Your task to perform on an android device: all mails in gmail Image 0: 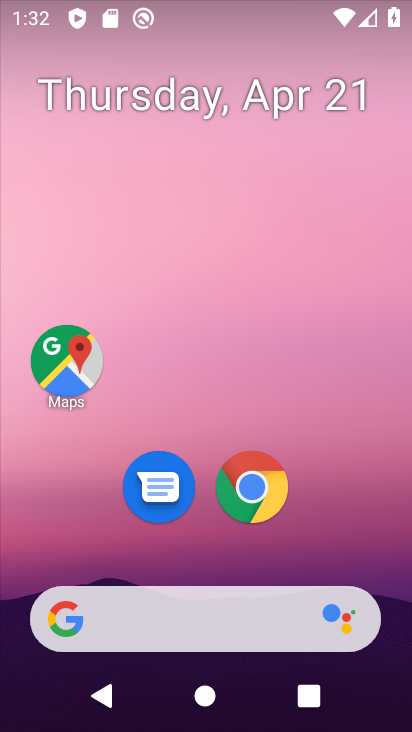
Step 0: drag from (194, 575) to (290, 5)
Your task to perform on an android device: all mails in gmail Image 1: 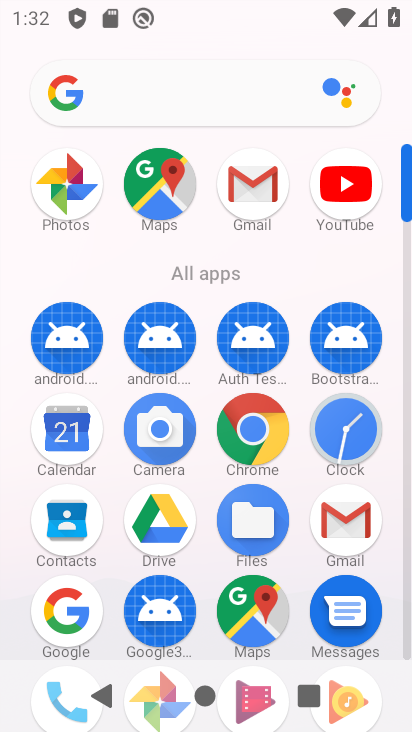
Step 1: drag from (212, 571) to (218, 209)
Your task to perform on an android device: all mails in gmail Image 2: 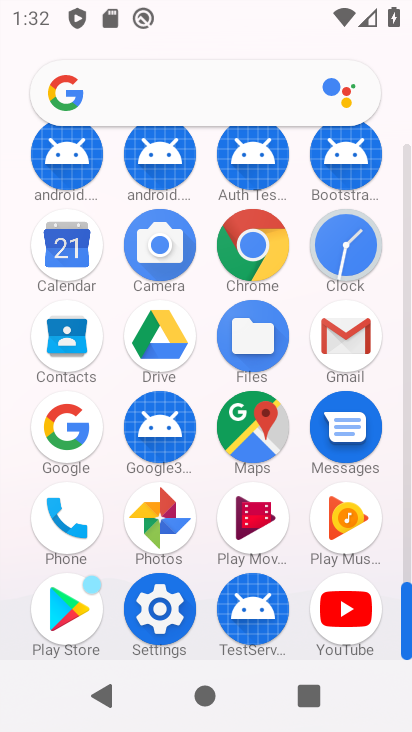
Step 2: drag from (212, 565) to (227, 271)
Your task to perform on an android device: all mails in gmail Image 3: 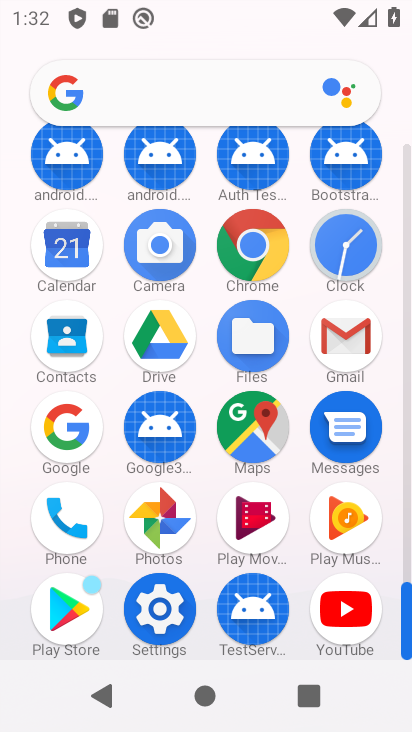
Step 3: click (344, 330)
Your task to perform on an android device: all mails in gmail Image 4: 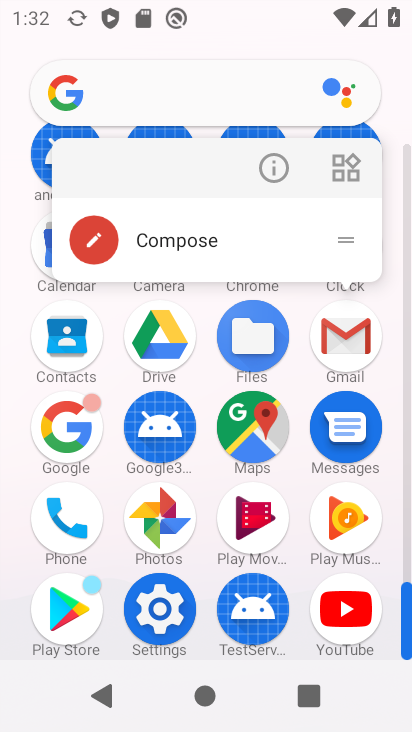
Step 4: drag from (183, 506) to (232, 296)
Your task to perform on an android device: all mails in gmail Image 5: 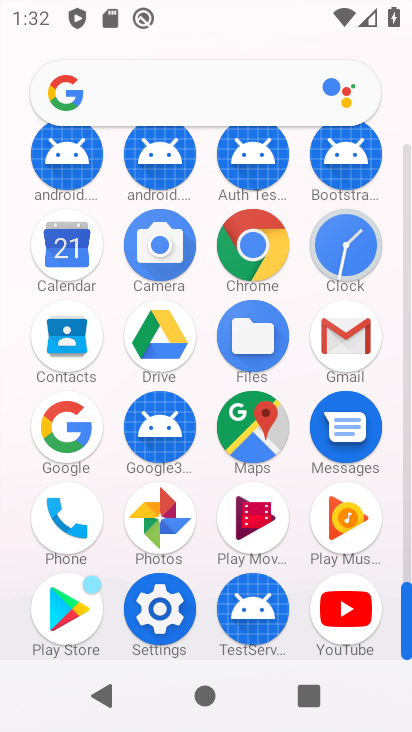
Step 5: click (344, 341)
Your task to perform on an android device: all mails in gmail Image 6: 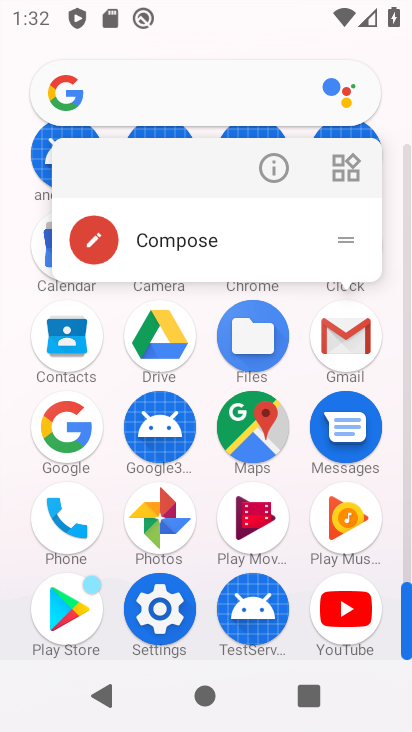
Step 6: click (276, 165)
Your task to perform on an android device: all mails in gmail Image 7: 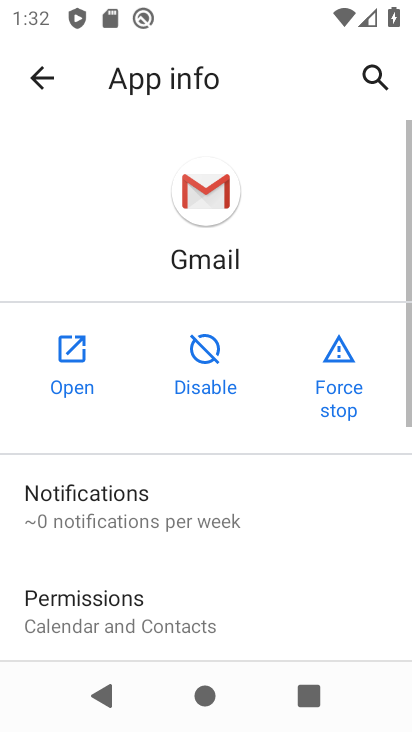
Step 7: click (74, 388)
Your task to perform on an android device: all mails in gmail Image 8: 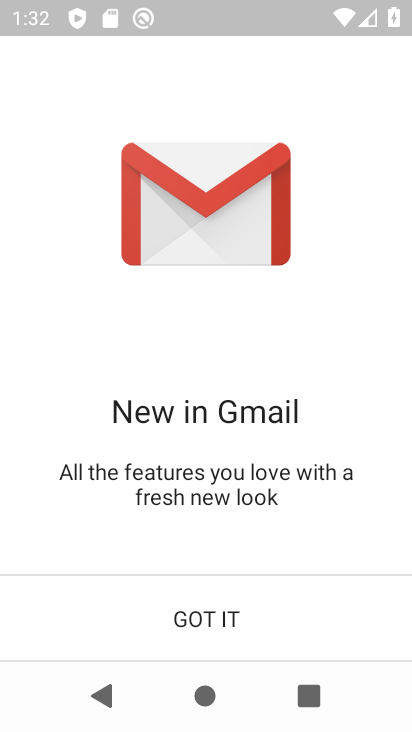
Step 8: click (177, 584)
Your task to perform on an android device: all mails in gmail Image 9: 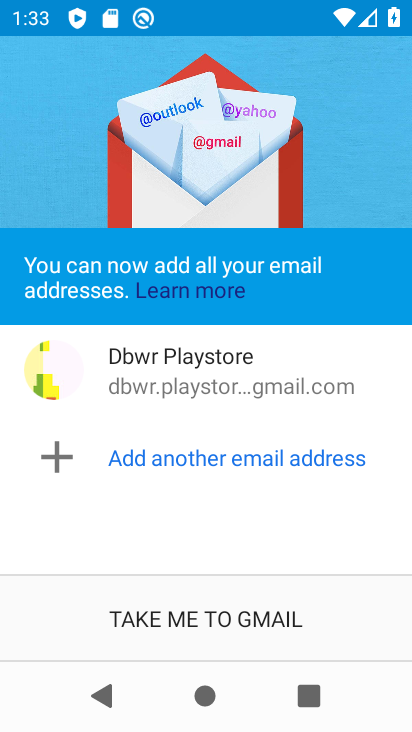
Step 9: click (169, 592)
Your task to perform on an android device: all mails in gmail Image 10: 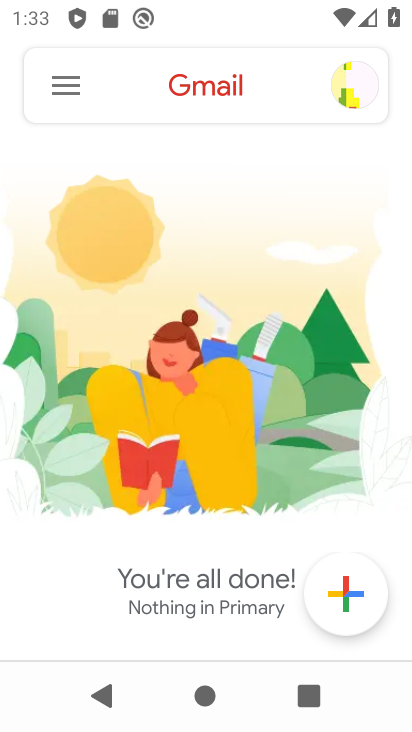
Step 10: click (64, 94)
Your task to perform on an android device: all mails in gmail Image 11: 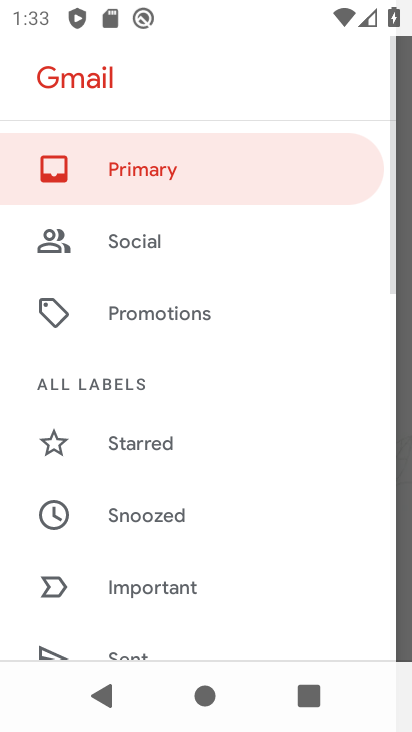
Step 11: drag from (207, 497) to (222, 151)
Your task to perform on an android device: all mails in gmail Image 12: 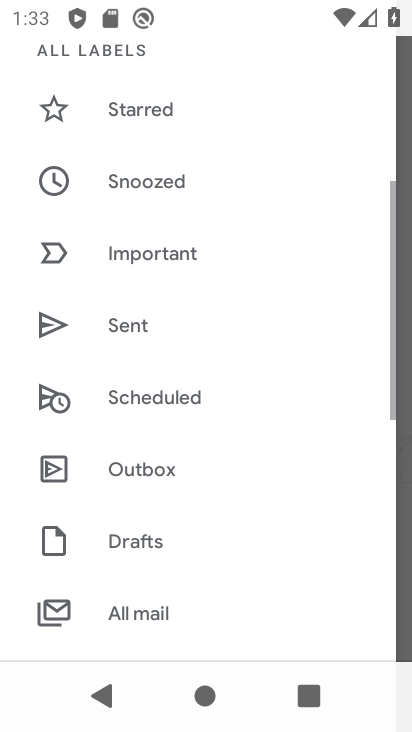
Step 12: click (152, 603)
Your task to perform on an android device: all mails in gmail Image 13: 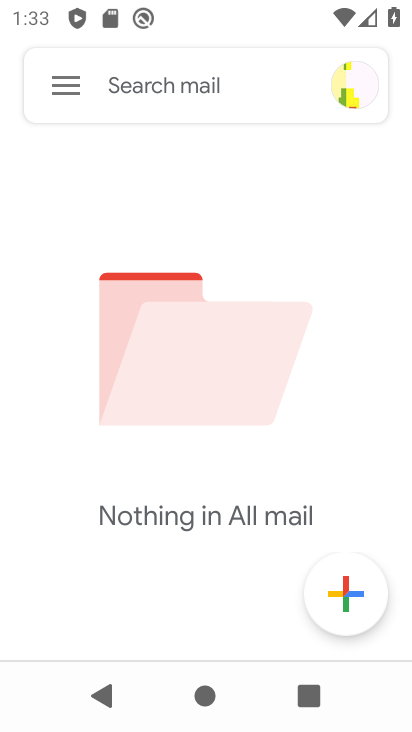
Step 13: task complete